Your task to perform on an android device: turn smart compose on in the gmail app Image 0: 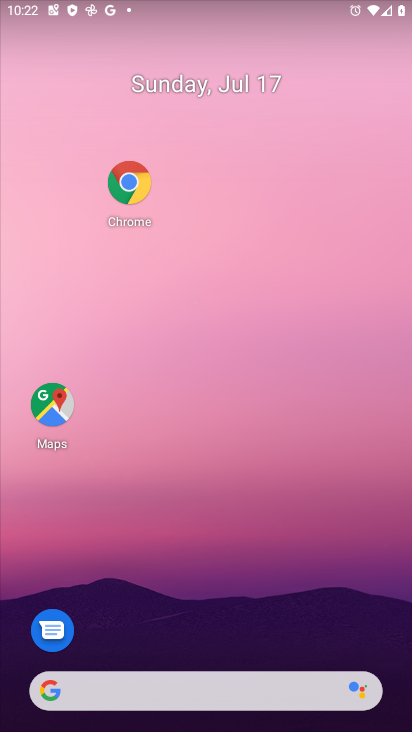
Step 0: drag from (126, 563) to (171, 50)
Your task to perform on an android device: turn smart compose on in the gmail app Image 1: 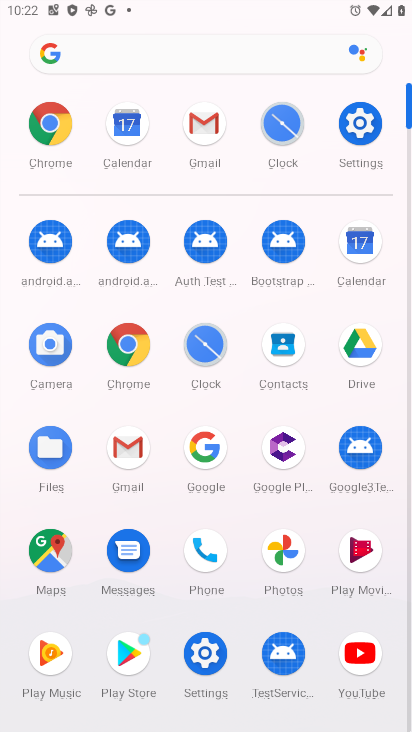
Step 1: click (201, 154)
Your task to perform on an android device: turn smart compose on in the gmail app Image 2: 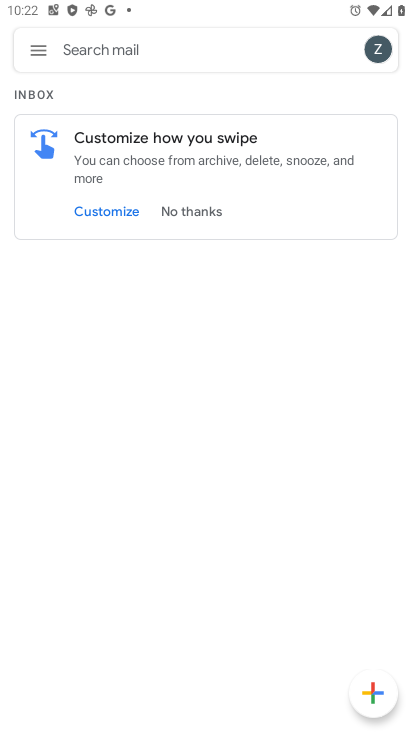
Step 2: click (42, 52)
Your task to perform on an android device: turn smart compose on in the gmail app Image 3: 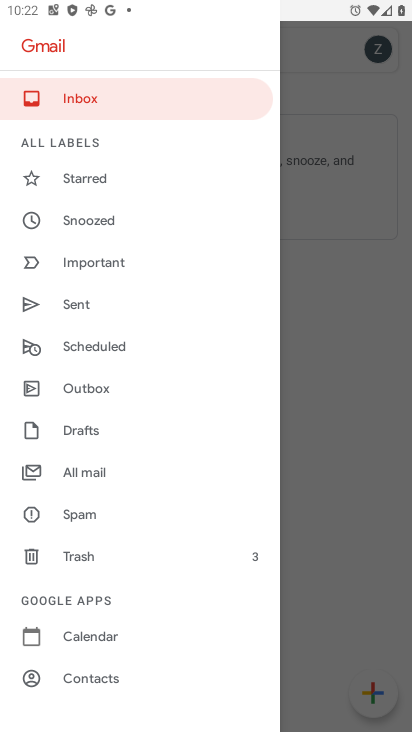
Step 3: drag from (109, 645) to (148, 258)
Your task to perform on an android device: turn smart compose on in the gmail app Image 4: 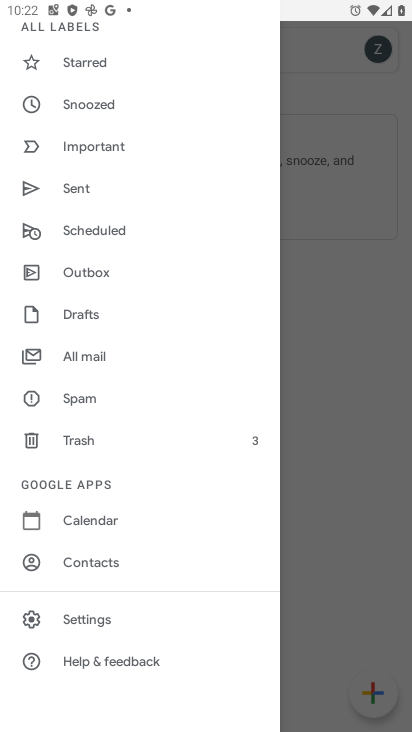
Step 4: click (76, 619)
Your task to perform on an android device: turn smart compose on in the gmail app Image 5: 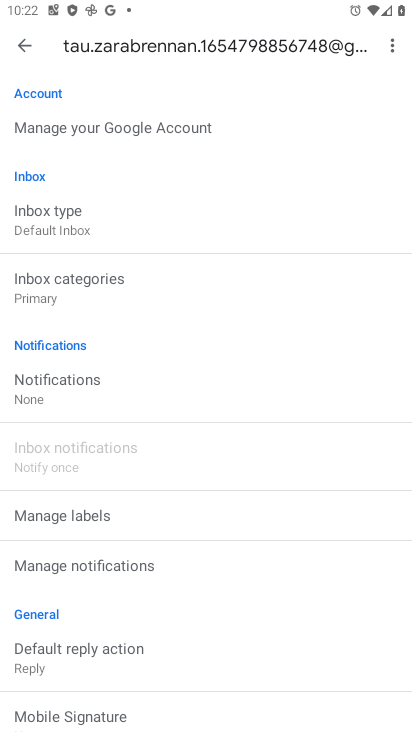
Step 5: task complete